Your task to perform on an android device: Open my contact list Image 0: 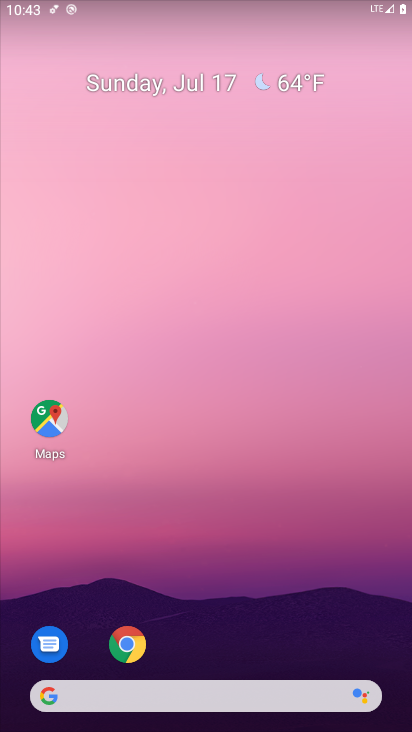
Step 0: press home button
Your task to perform on an android device: Open my contact list Image 1: 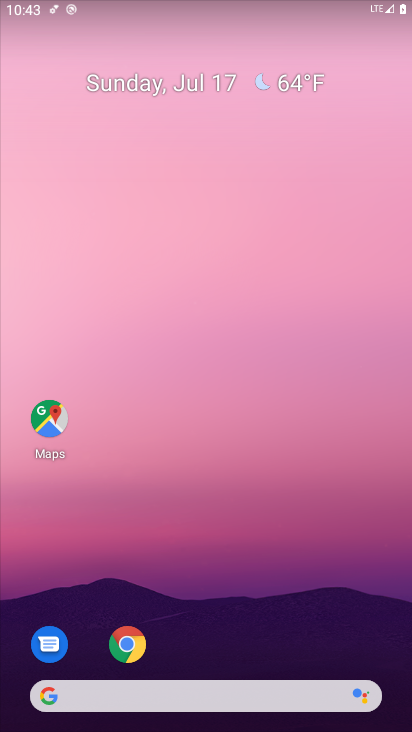
Step 1: drag from (282, 606) to (257, 53)
Your task to perform on an android device: Open my contact list Image 2: 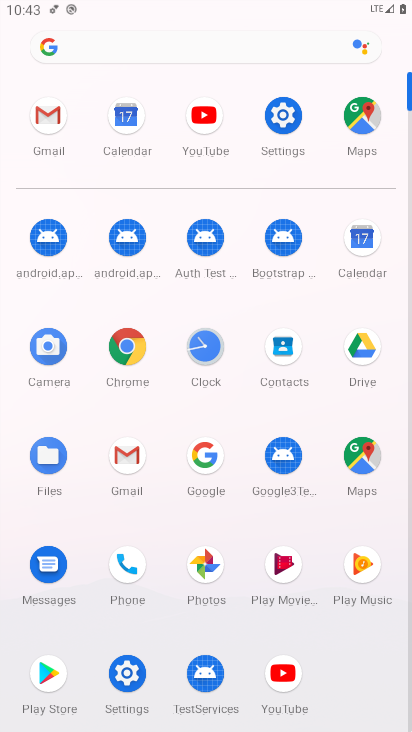
Step 2: click (285, 353)
Your task to perform on an android device: Open my contact list Image 3: 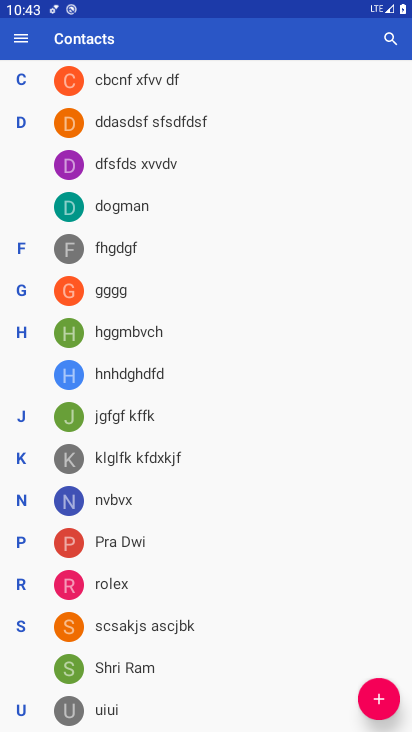
Step 3: task complete